Your task to perform on an android device: change the clock style Image 0: 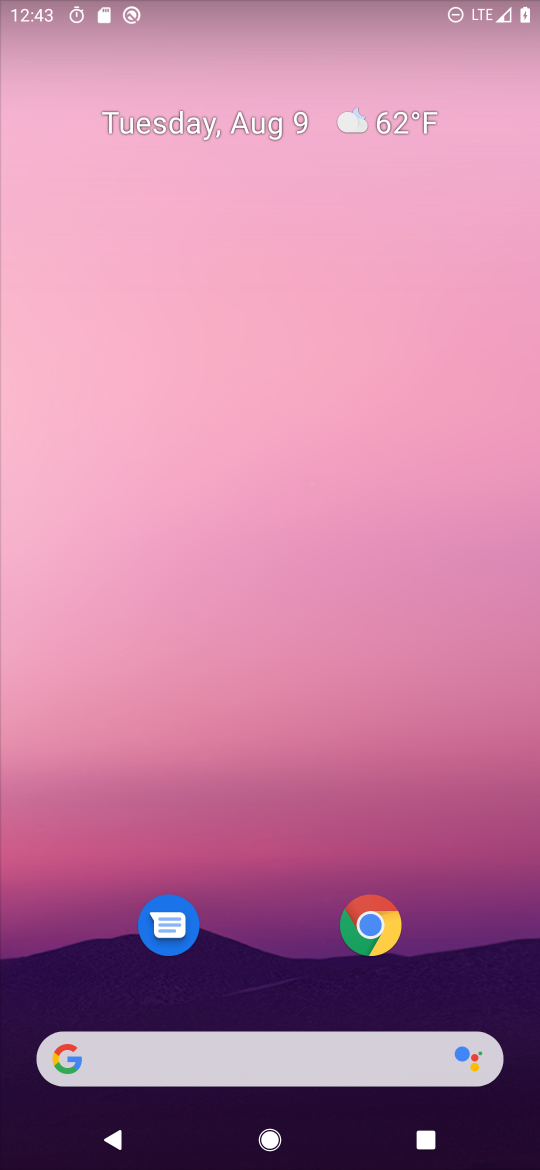
Step 0: drag from (264, 905) to (282, 126)
Your task to perform on an android device: change the clock style Image 1: 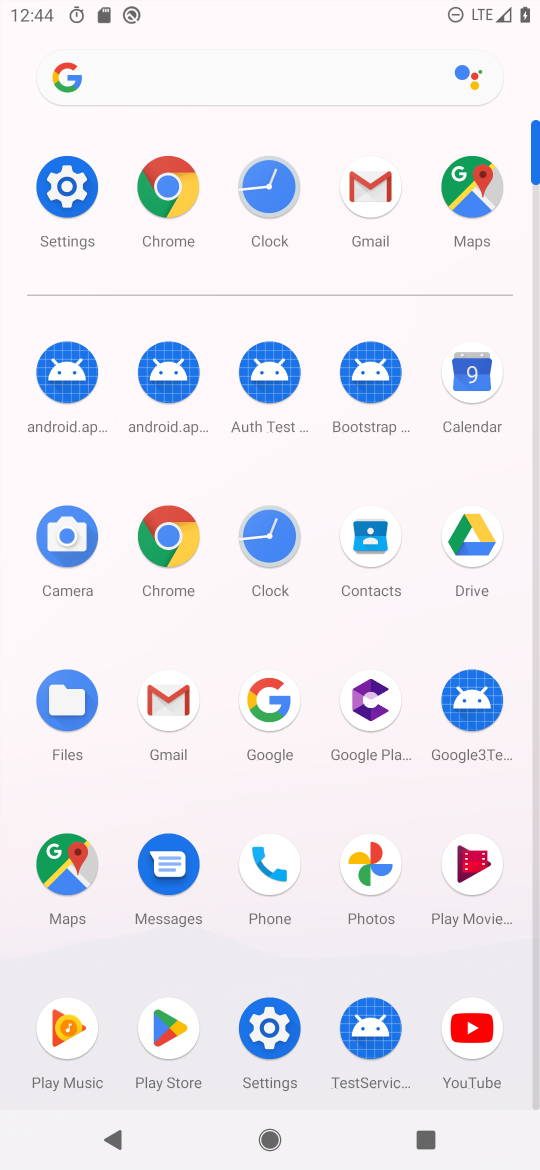
Step 1: click (269, 528)
Your task to perform on an android device: change the clock style Image 2: 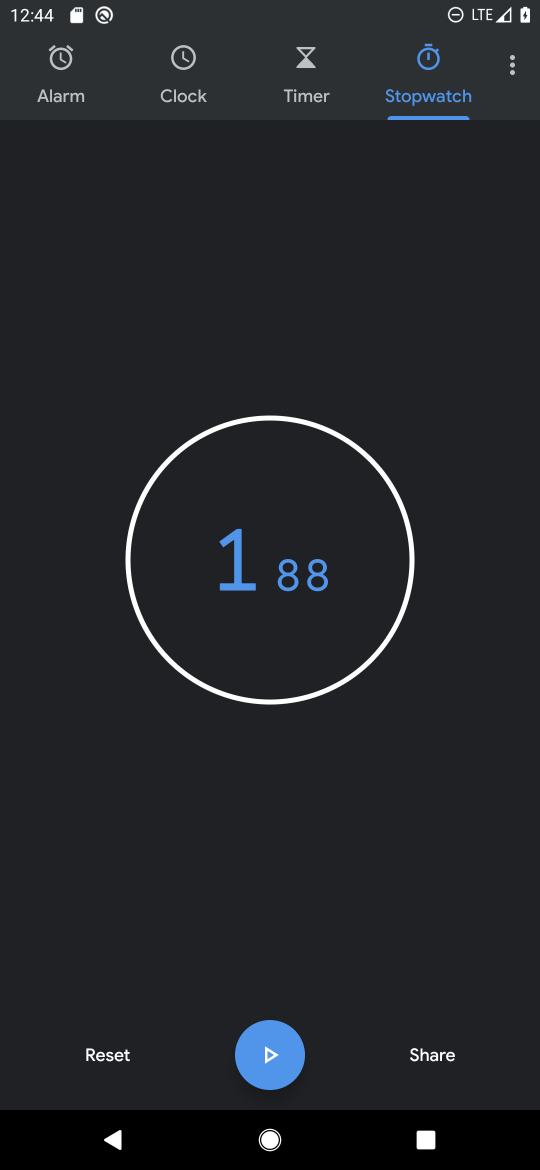
Step 2: click (501, 63)
Your task to perform on an android device: change the clock style Image 3: 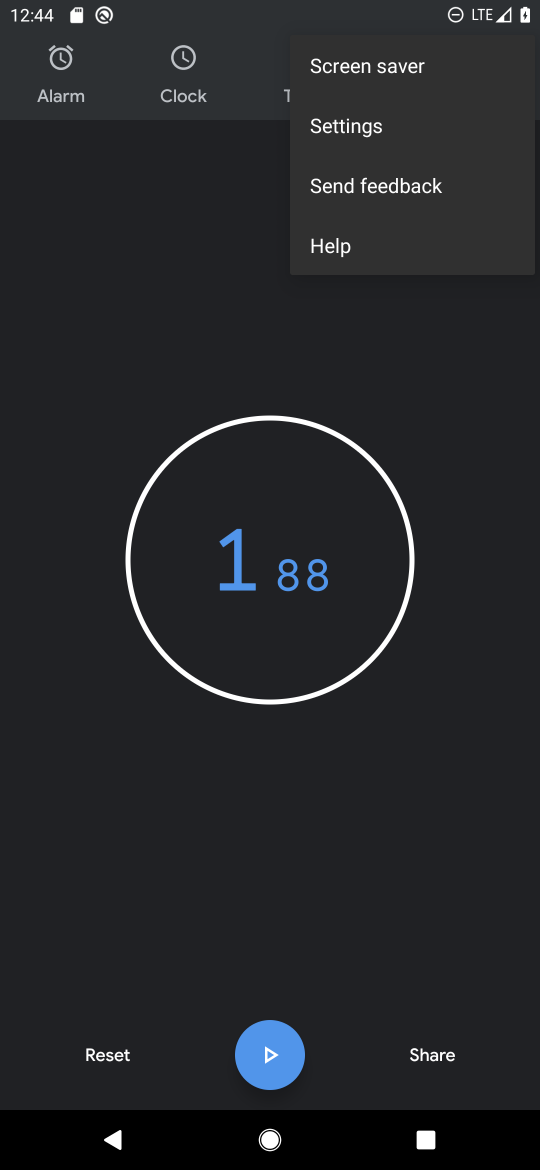
Step 3: click (359, 156)
Your task to perform on an android device: change the clock style Image 4: 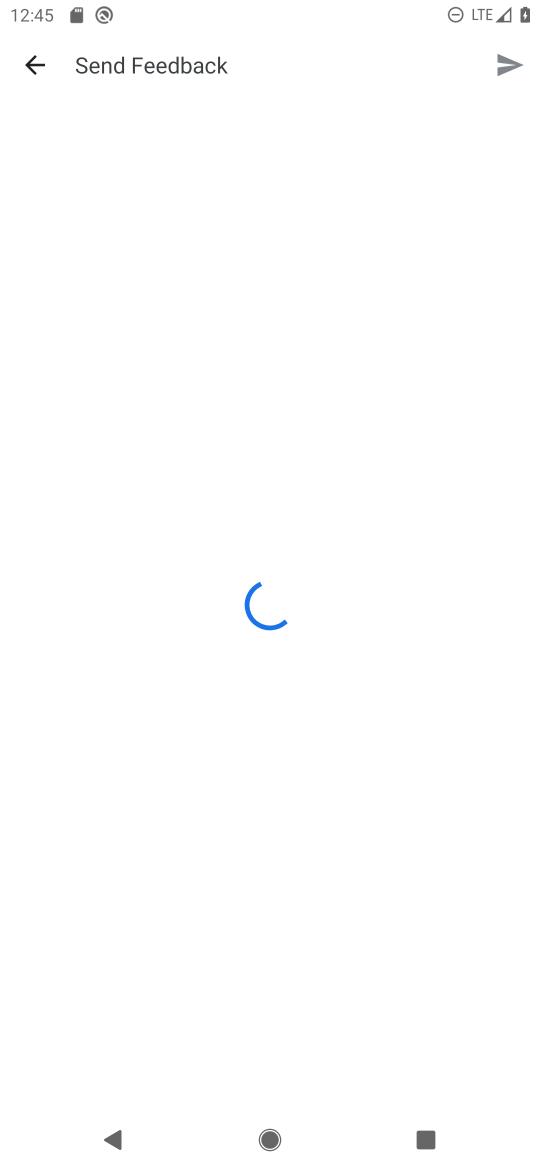
Step 4: press back button
Your task to perform on an android device: change the clock style Image 5: 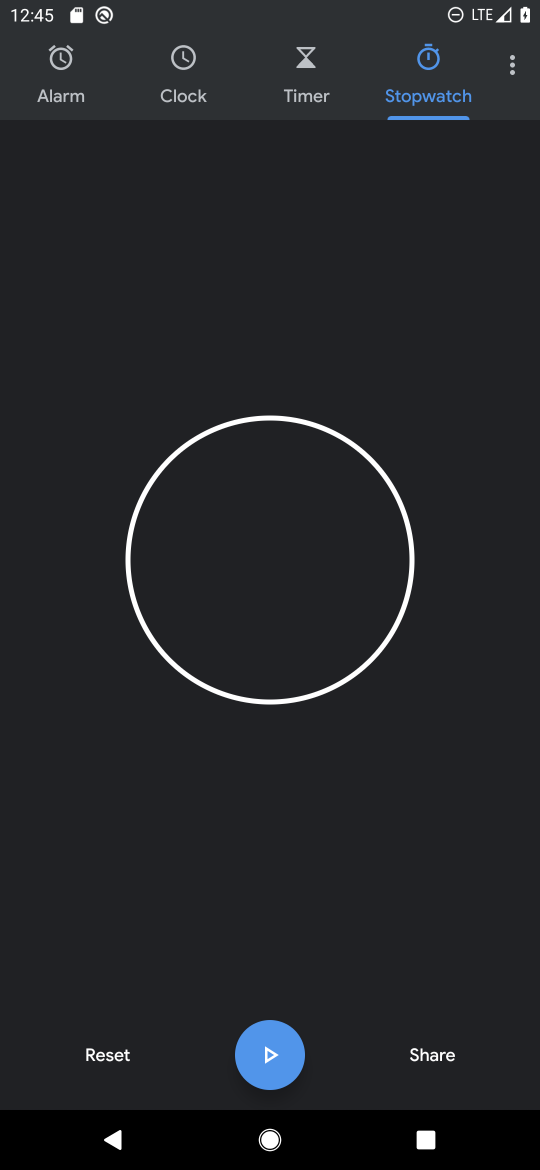
Step 5: click (512, 67)
Your task to perform on an android device: change the clock style Image 6: 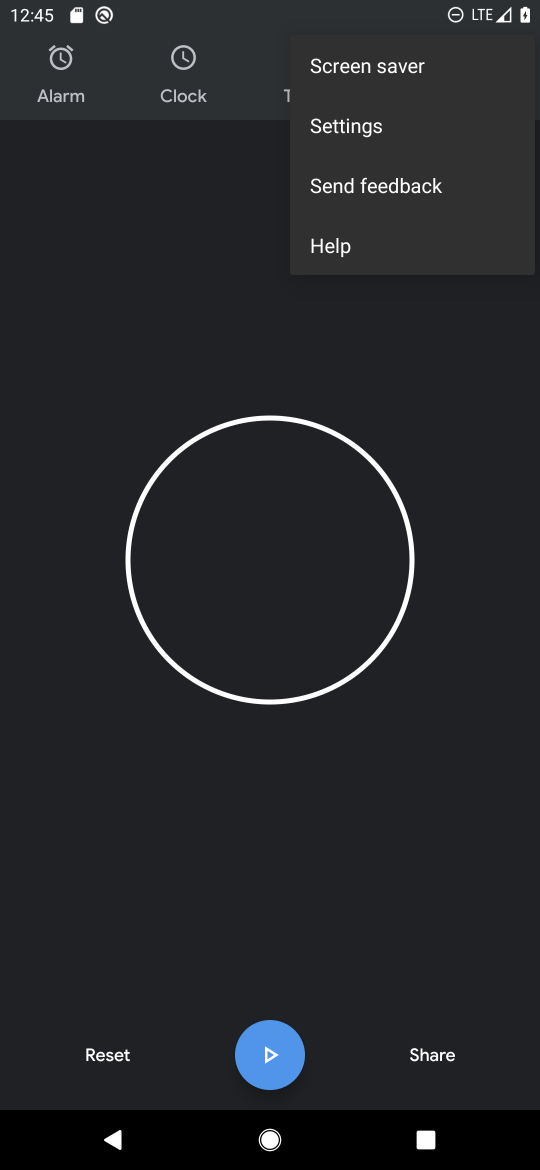
Step 6: click (388, 122)
Your task to perform on an android device: change the clock style Image 7: 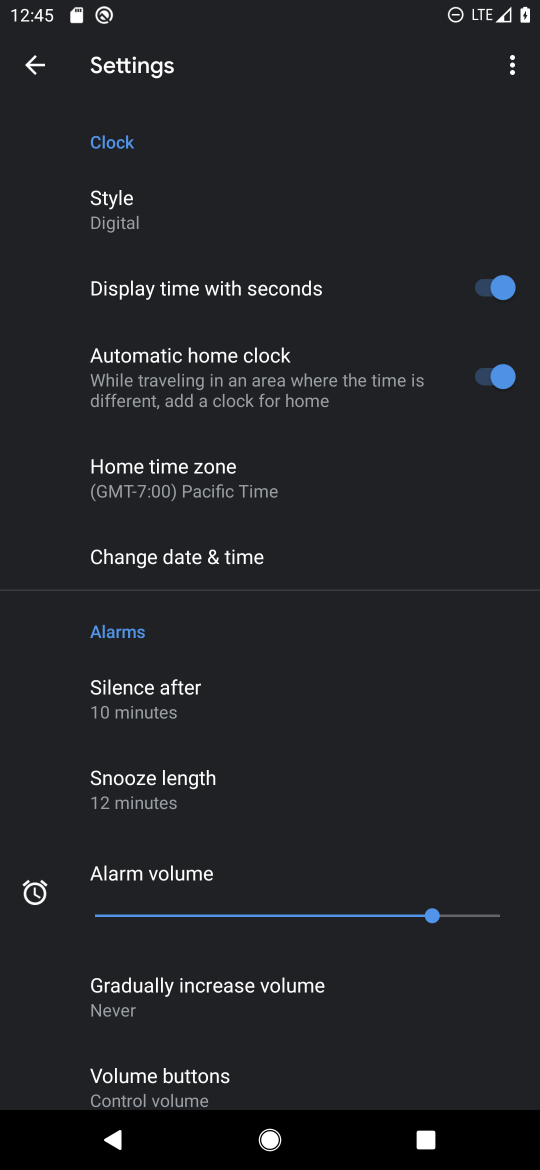
Step 7: click (134, 206)
Your task to perform on an android device: change the clock style Image 8: 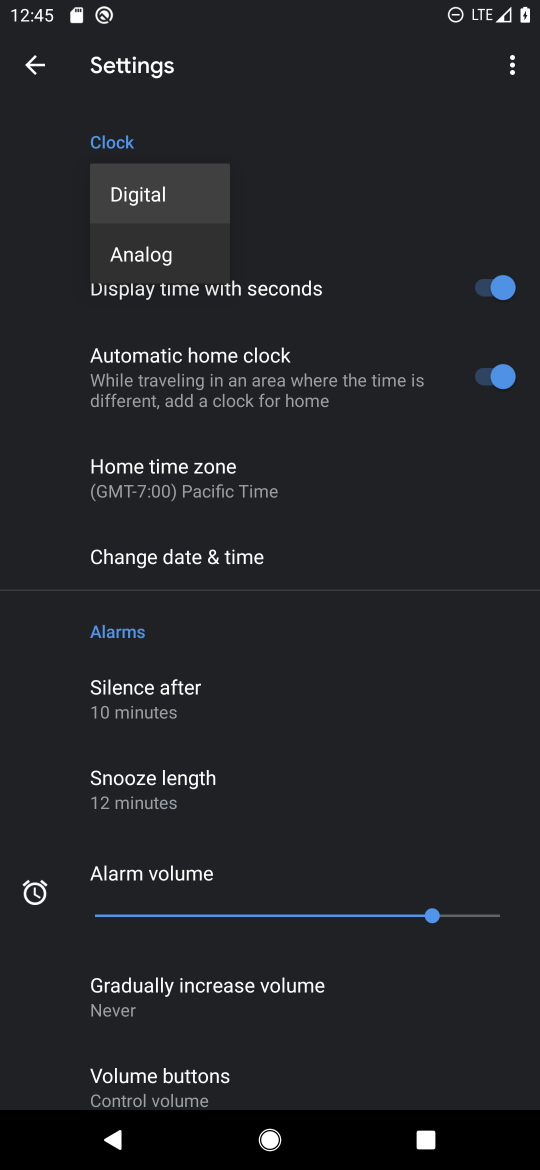
Step 8: click (158, 244)
Your task to perform on an android device: change the clock style Image 9: 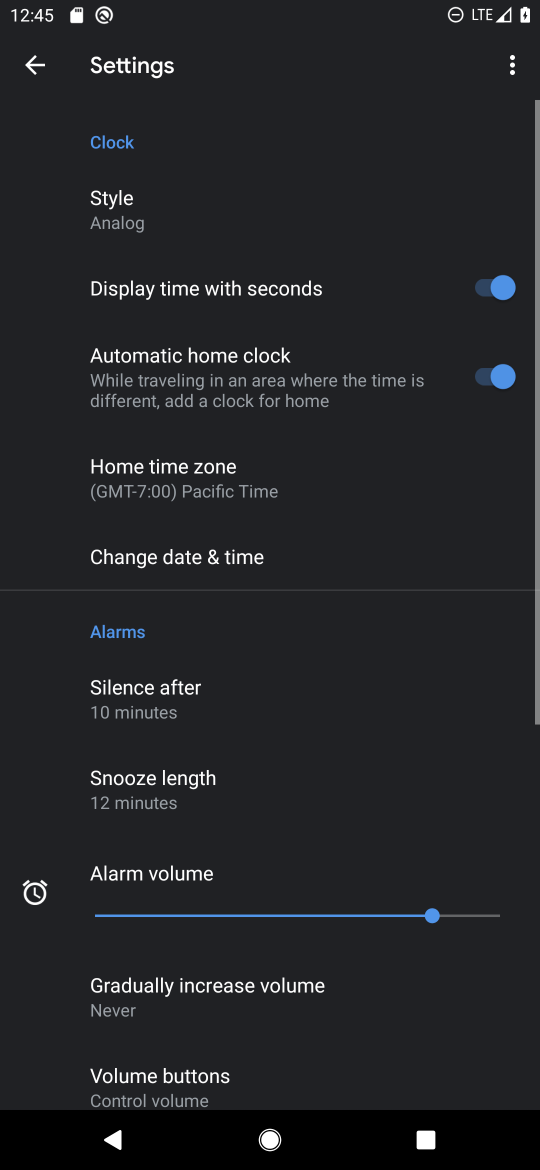
Step 9: task complete